Your task to perform on an android device: set the stopwatch Image 0: 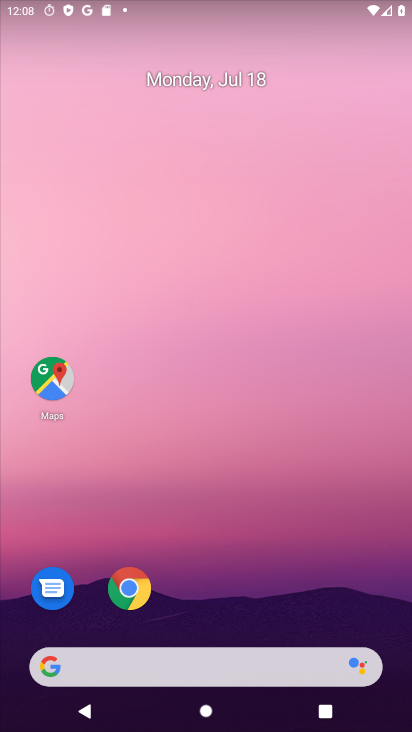
Step 0: drag from (273, 578) to (313, 0)
Your task to perform on an android device: set the stopwatch Image 1: 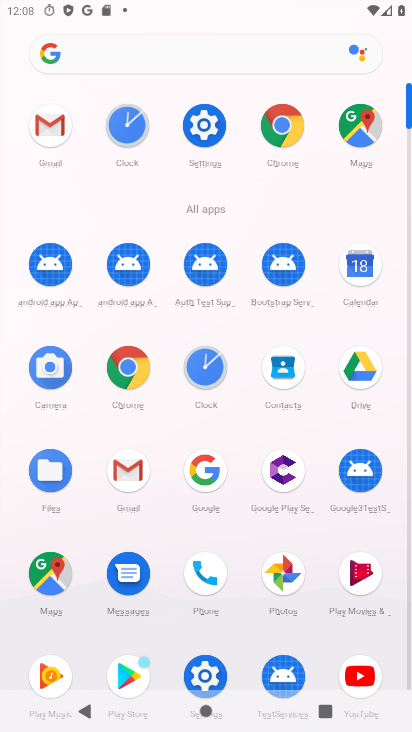
Step 1: click (202, 378)
Your task to perform on an android device: set the stopwatch Image 2: 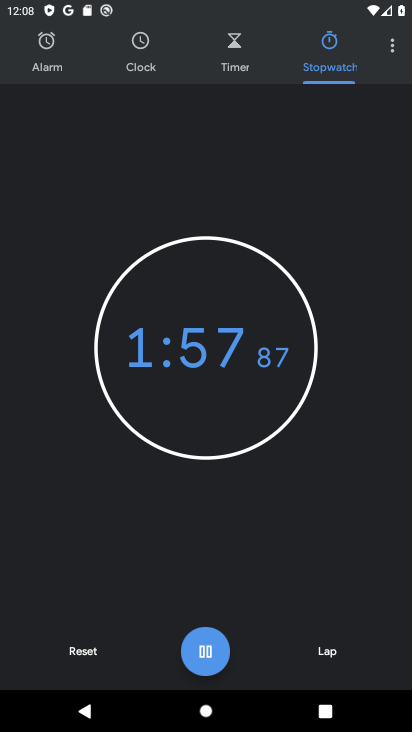
Step 2: task complete